Your task to perform on an android device: check battery use Image 0: 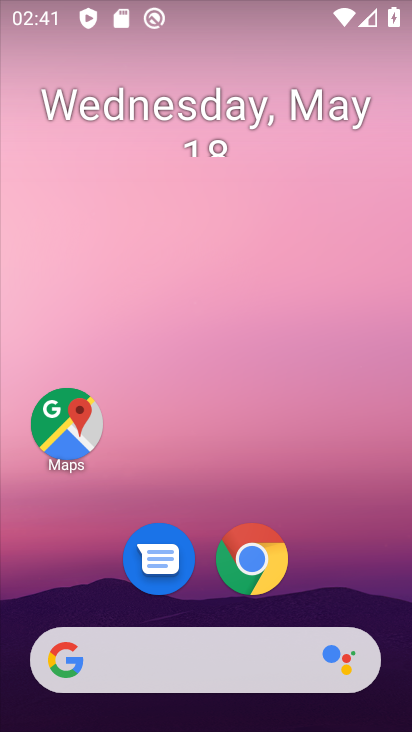
Step 0: drag from (202, 581) to (213, 93)
Your task to perform on an android device: check battery use Image 1: 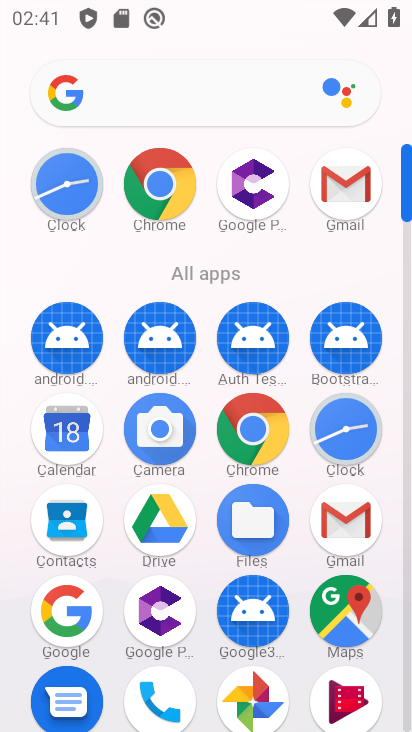
Step 1: drag from (199, 636) to (276, 222)
Your task to perform on an android device: check battery use Image 2: 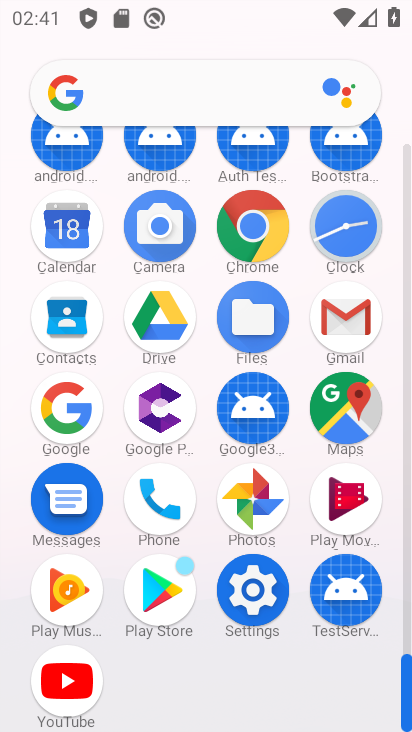
Step 2: click (232, 617)
Your task to perform on an android device: check battery use Image 3: 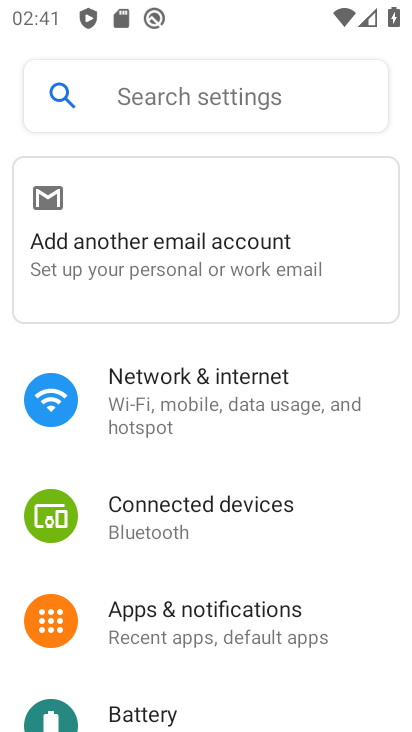
Step 3: click (129, 712)
Your task to perform on an android device: check battery use Image 4: 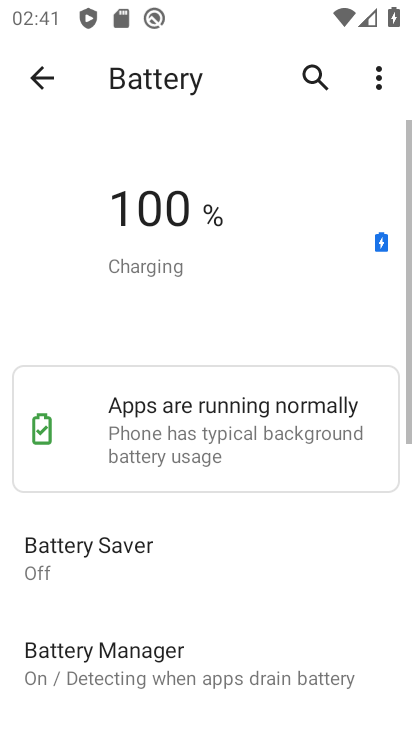
Step 4: click (385, 59)
Your task to perform on an android device: check battery use Image 5: 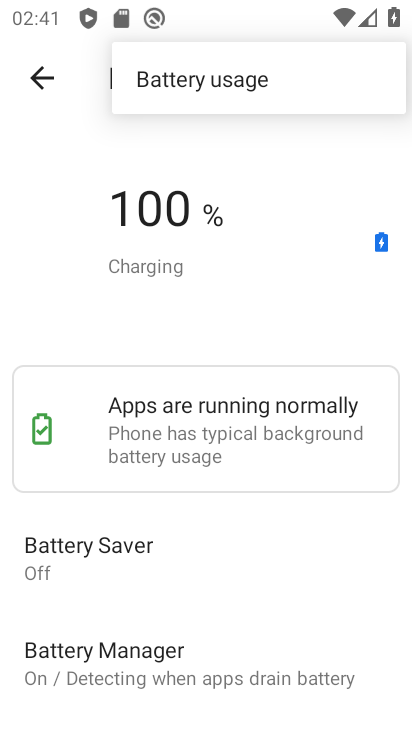
Step 5: click (206, 87)
Your task to perform on an android device: check battery use Image 6: 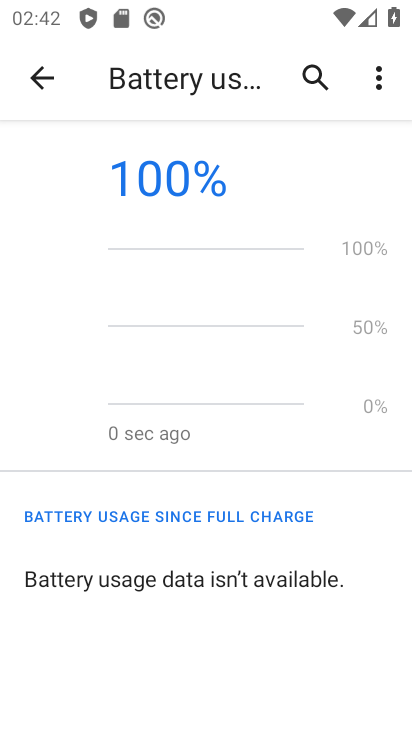
Step 6: task complete